Your task to perform on an android device: Is it going to rain today? Image 0: 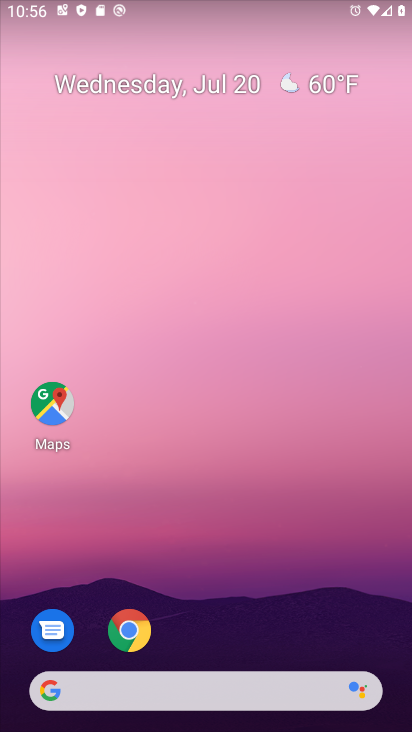
Step 0: drag from (209, 669) to (194, 327)
Your task to perform on an android device: Is it going to rain today? Image 1: 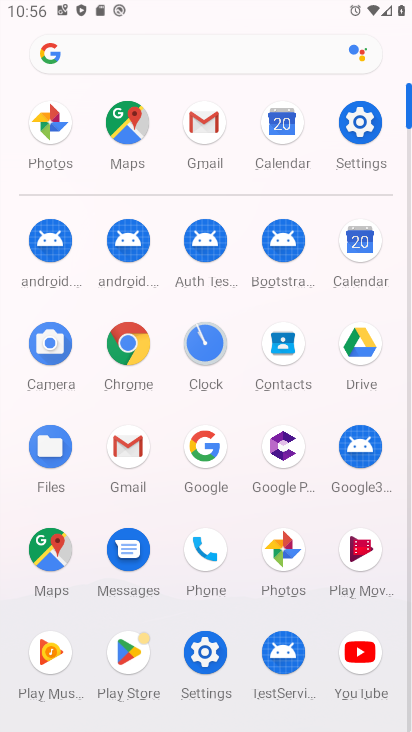
Step 1: click (207, 449)
Your task to perform on an android device: Is it going to rain today? Image 2: 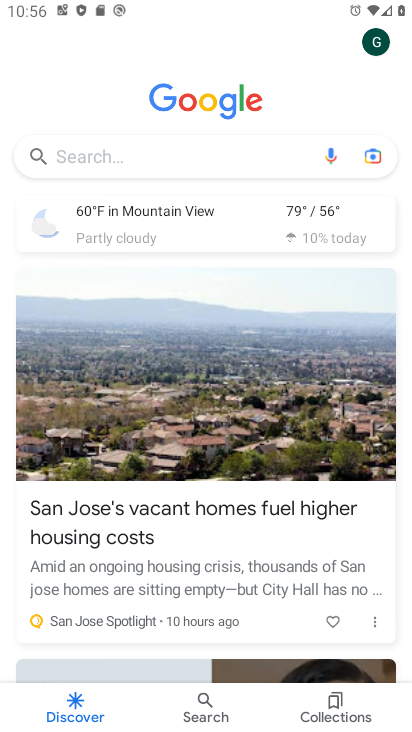
Step 2: click (143, 222)
Your task to perform on an android device: Is it going to rain today? Image 3: 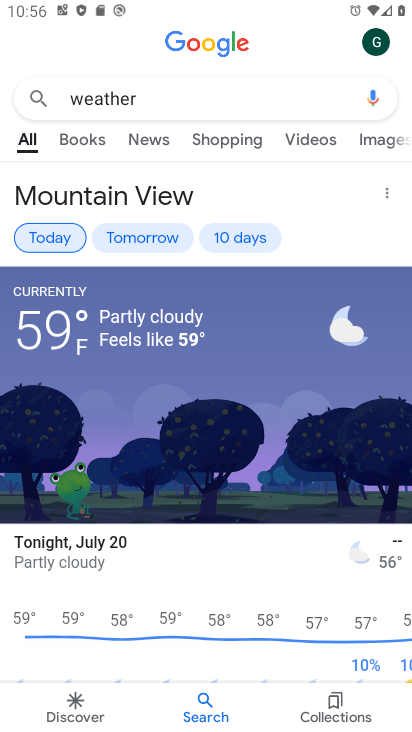
Step 3: click (49, 237)
Your task to perform on an android device: Is it going to rain today? Image 4: 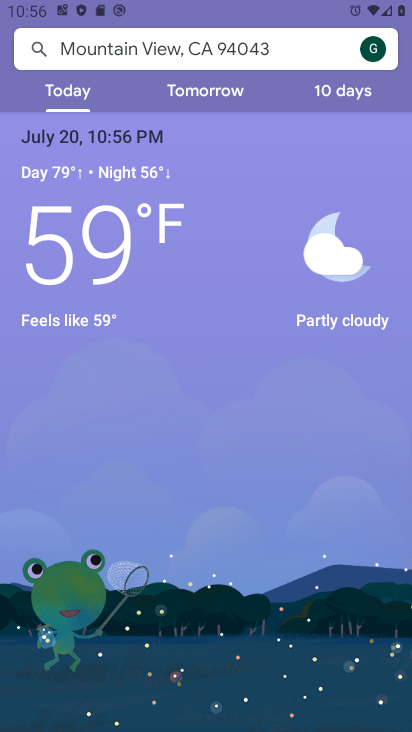
Step 4: task complete